Your task to perform on an android device: toggle translation in the chrome app Image 0: 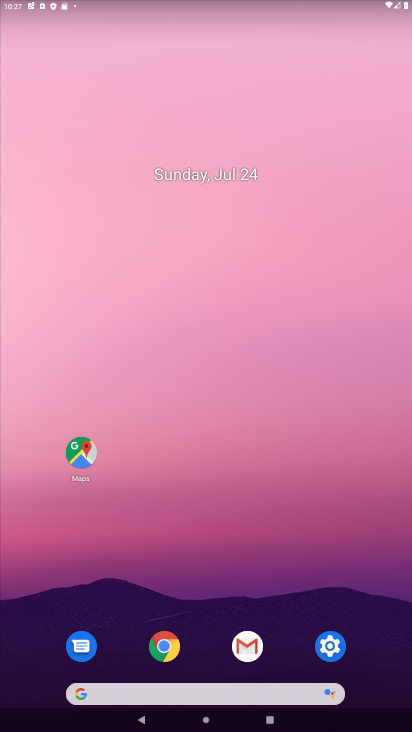
Step 0: click (167, 646)
Your task to perform on an android device: toggle translation in the chrome app Image 1: 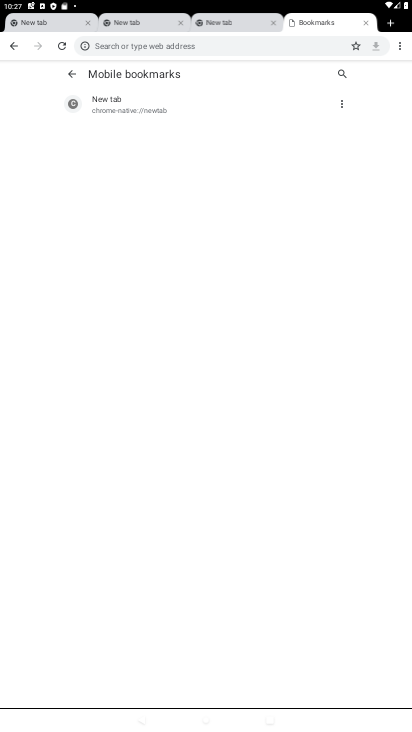
Step 1: click (400, 53)
Your task to perform on an android device: toggle translation in the chrome app Image 2: 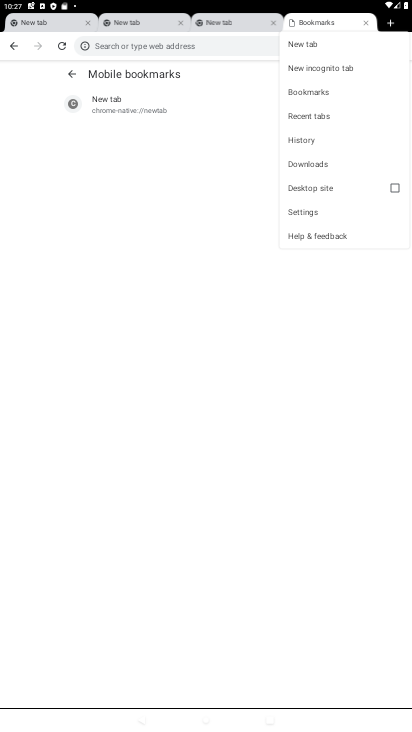
Step 2: click (302, 207)
Your task to perform on an android device: toggle translation in the chrome app Image 3: 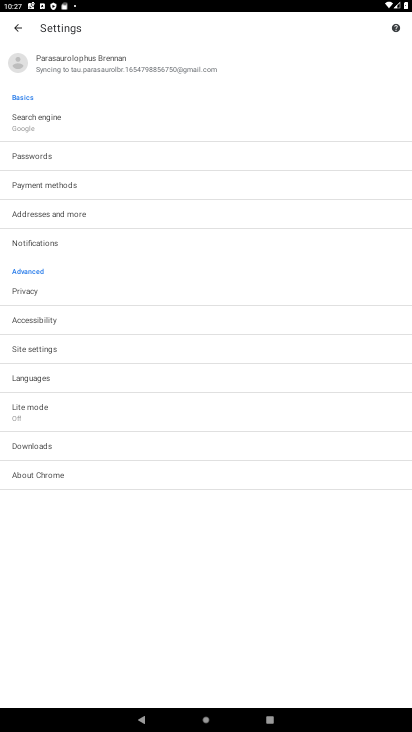
Step 3: click (66, 352)
Your task to perform on an android device: toggle translation in the chrome app Image 4: 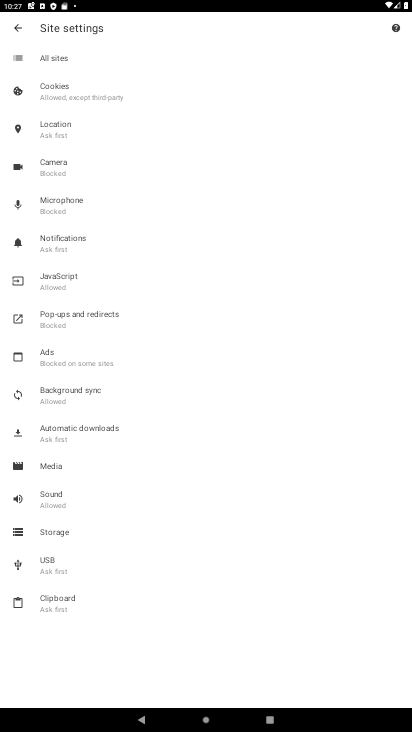
Step 4: click (19, 27)
Your task to perform on an android device: toggle translation in the chrome app Image 5: 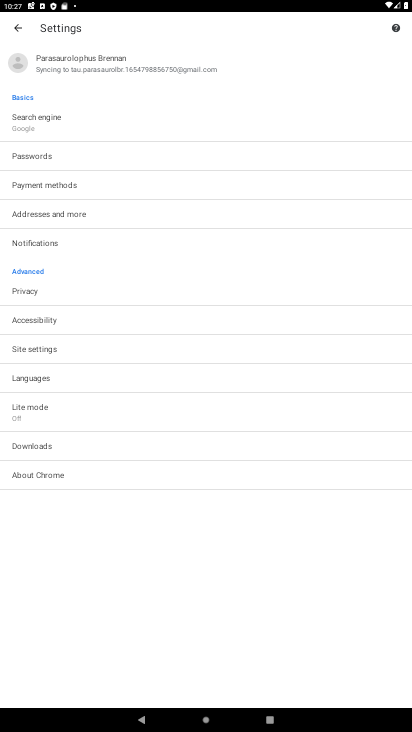
Step 5: click (49, 379)
Your task to perform on an android device: toggle translation in the chrome app Image 6: 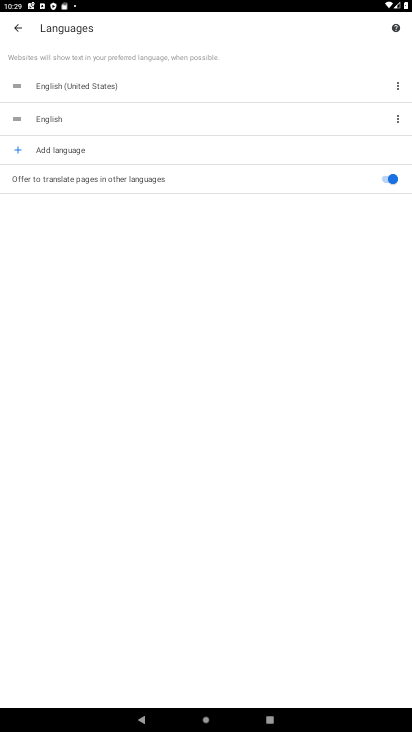
Step 6: task complete